Your task to perform on an android device: Go to Wikipedia Image 0: 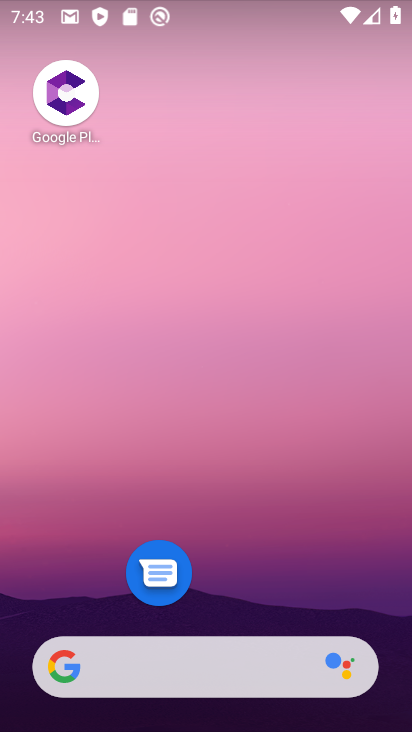
Step 0: drag from (234, 649) to (182, 105)
Your task to perform on an android device: Go to Wikipedia Image 1: 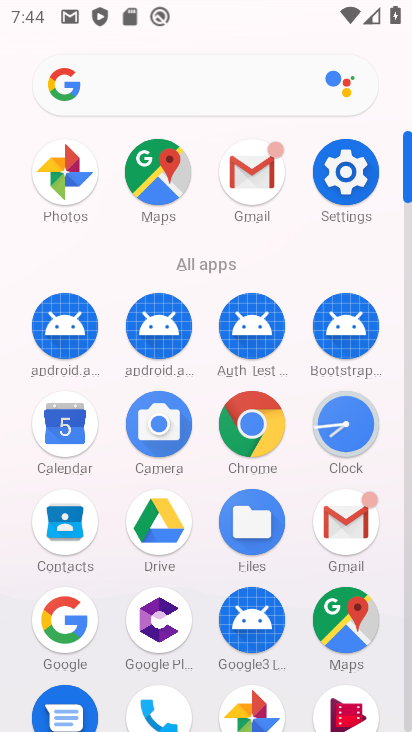
Step 1: click (258, 421)
Your task to perform on an android device: Go to Wikipedia Image 2: 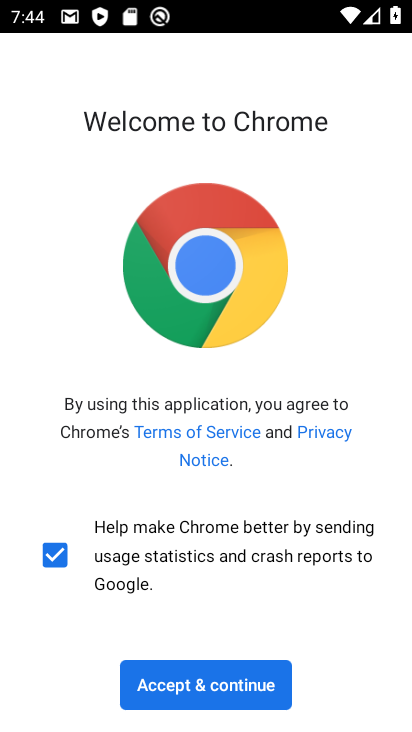
Step 2: click (189, 672)
Your task to perform on an android device: Go to Wikipedia Image 3: 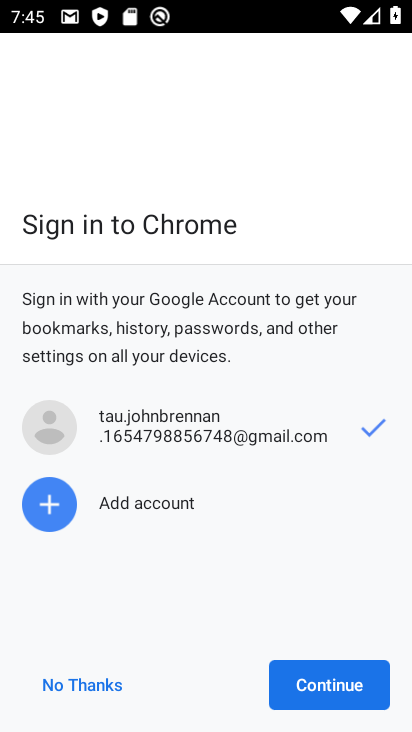
Step 3: click (56, 681)
Your task to perform on an android device: Go to Wikipedia Image 4: 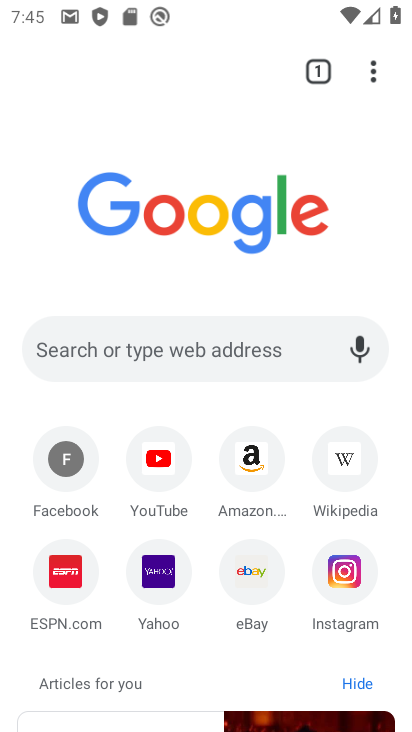
Step 4: click (358, 460)
Your task to perform on an android device: Go to Wikipedia Image 5: 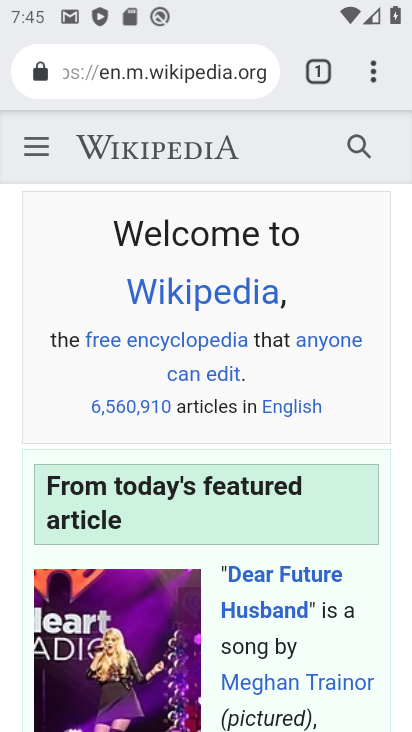
Step 5: task complete